Your task to perform on an android device: turn on javascript in the chrome app Image 0: 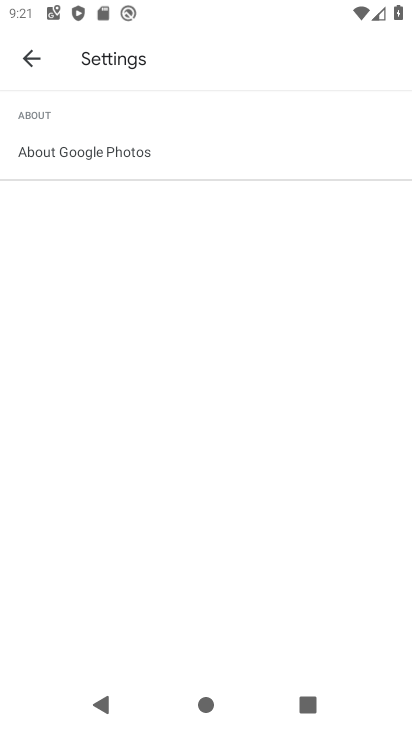
Step 0: press home button
Your task to perform on an android device: turn on javascript in the chrome app Image 1: 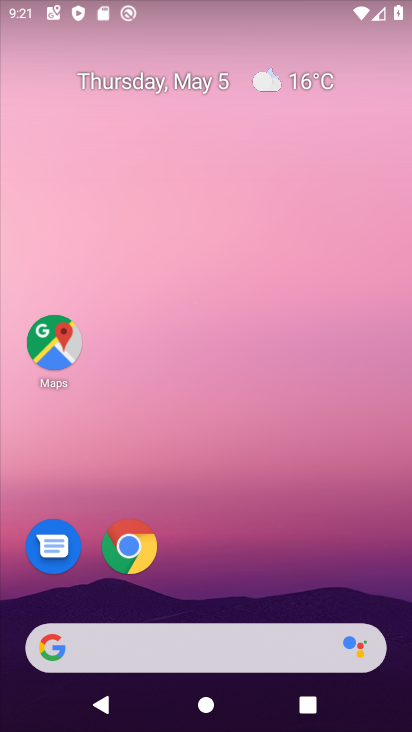
Step 1: drag from (126, 646) to (311, 56)
Your task to perform on an android device: turn on javascript in the chrome app Image 2: 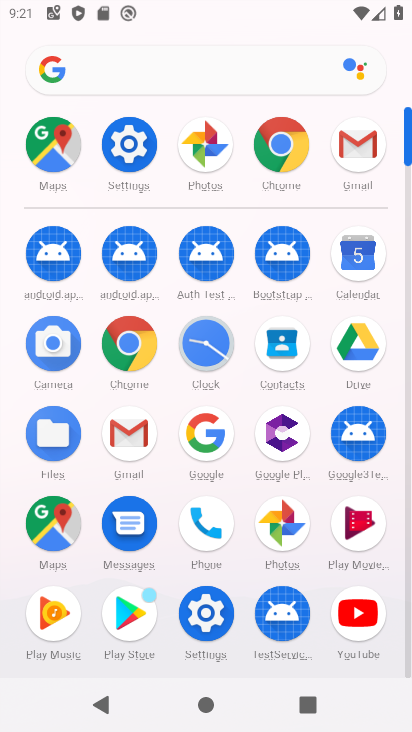
Step 2: click (272, 160)
Your task to perform on an android device: turn on javascript in the chrome app Image 3: 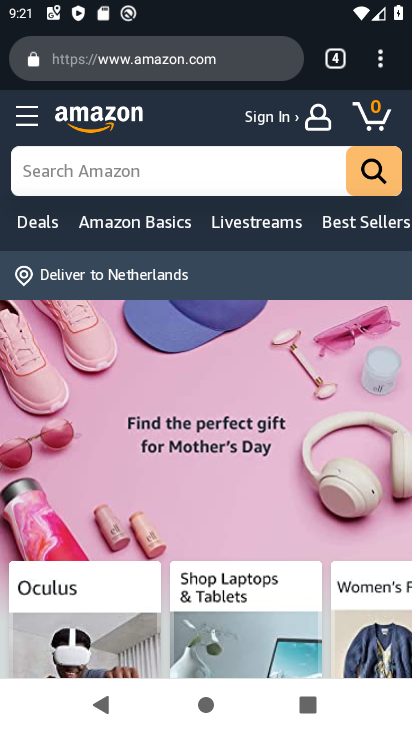
Step 3: drag from (379, 59) to (221, 571)
Your task to perform on an android device: turn on javascript in the chrome app Image 4: 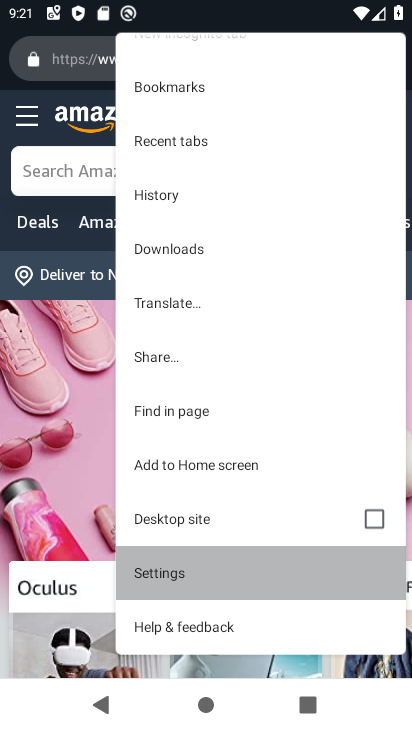
Step 4: click (221, 572)
Your task to perform on an android device: turn on javascript in the chrome app Image 5: 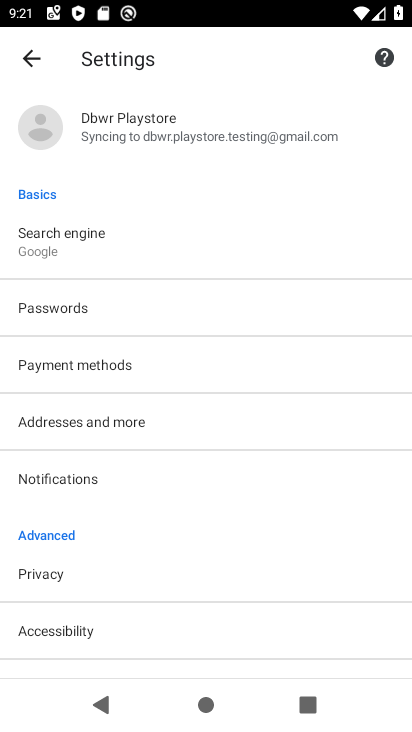
Step 5: drag from (168, 586) to (305, 222)
Your task to perform on an android device: turn on javascript in the chrome app Image 6: 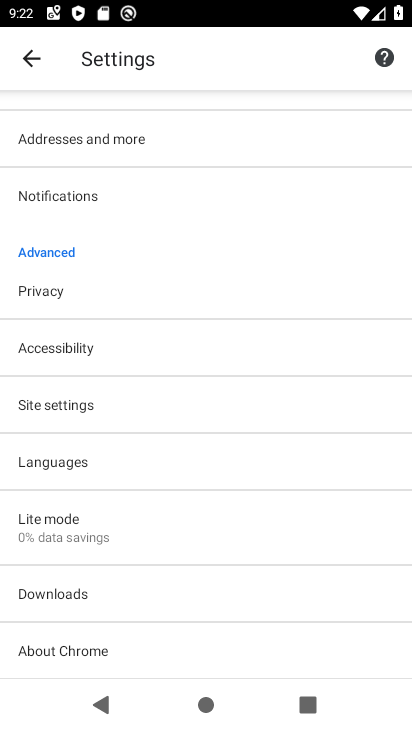
Step 6: click (110, 411)
Your task to perform on an android device: turn on javascript in the chrome app Image 7: 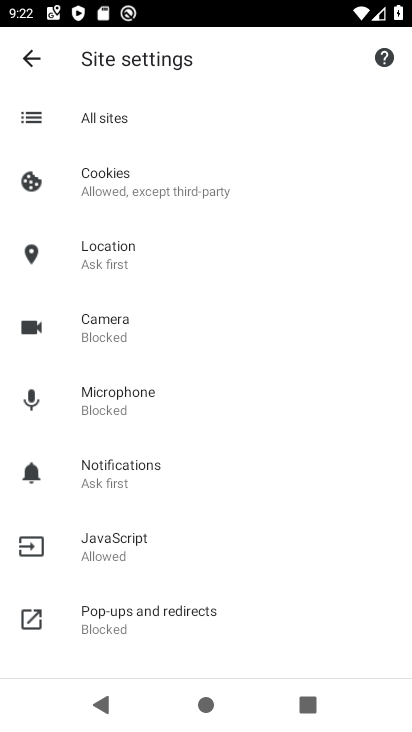
Step 7: click (142, 547)
Your task to perform on an android device: turn on javascript in the chrome app Image 8: 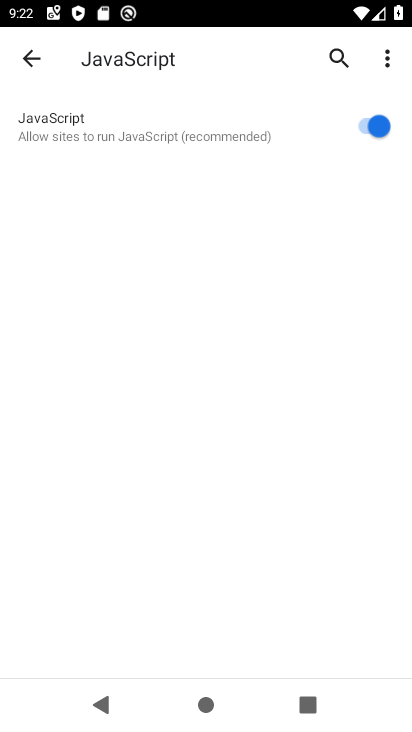
Step 8: task complete